Your task to perform on an android device: Show the shopping cart on walmart.com. Search for "logitech g903" on walmart.com, select the first entry, and add it to the cart. Image 0: 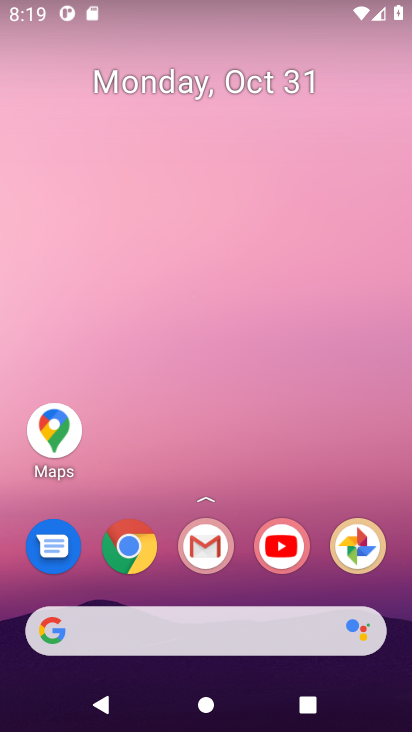
Step 0: click (128, 552)
Your task to perform on an android device: Show the shopping cart on walmart.com. Search for "logitech g903" on walmart.com, select the first entry, and add it to the cart. Image 1: 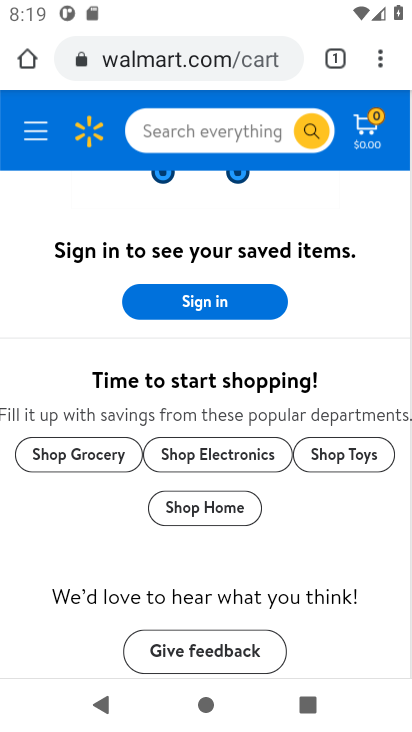
Step 1: drag from (328, 197) to (352, 404)
Your task to perform on an android device: Show the shopping cart on walmart.com. Search for "logitech g903" on walmart.com, select the first entry, and add it to the cart. Image 2: 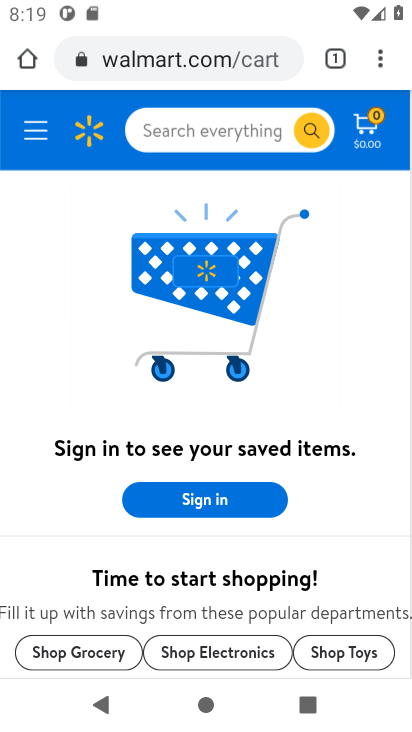
Step 2: drag from (313, 215) to (344, 530)
Your task to perform on an android device: Show the shopping cart on walmart.com. Search for "logitech g903" on walmart.com, select the first entry, and add it to the cart. Image 3: 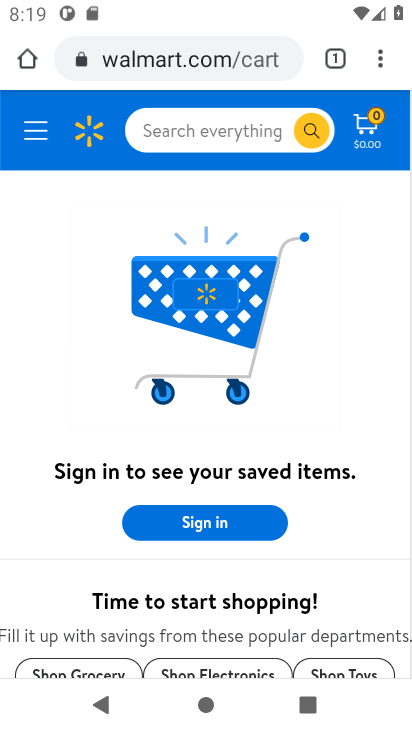
Step 3: click (191, 125)
Your task to perform on an android device: Show the shopping cart on walmart.com. Search for "logitech g903" on walmart.com, select the first entry, and add it to the cart. Image 4: 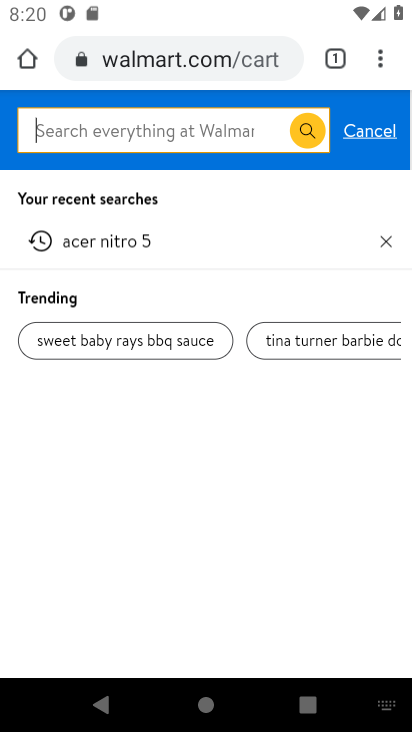
Step 4: type "logitech g903"
Your task to perform on an android device: Show the shopping cart on walmart.com. Search for "logitech g903" on walmart.com, select the first entry, and add it to the cart. Image 5: 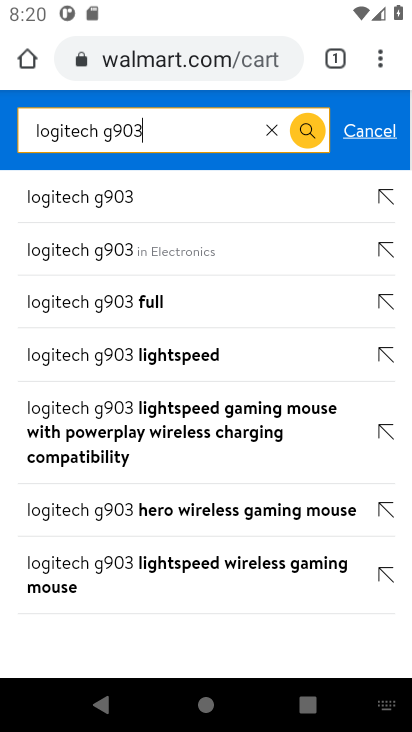
Step 5: click (66, 192)
Your task to perform on an android device: Show the shopping cart on walmart.com. Search for "logitech g903" on walmart.com, select the first entry, and add it to the cart. Image 6: 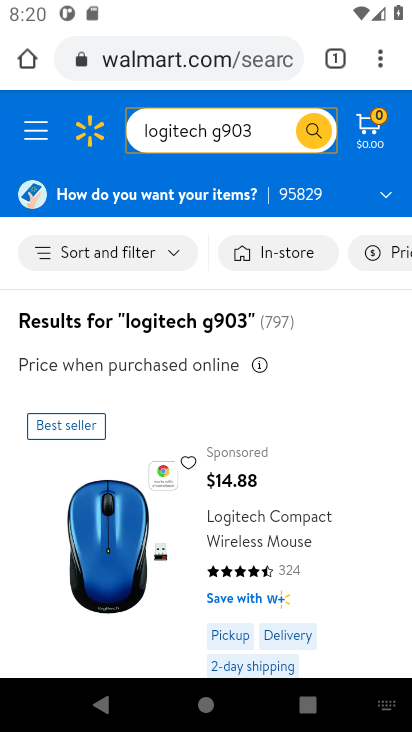
Step 6: drag from (331, 567) to (336, 290)
Your task to perform on an android device: Show the shopping cart on walmart.com. Search for "logitech g903" on walmart.com, select the first entry, and add it to the cart. Image 7: 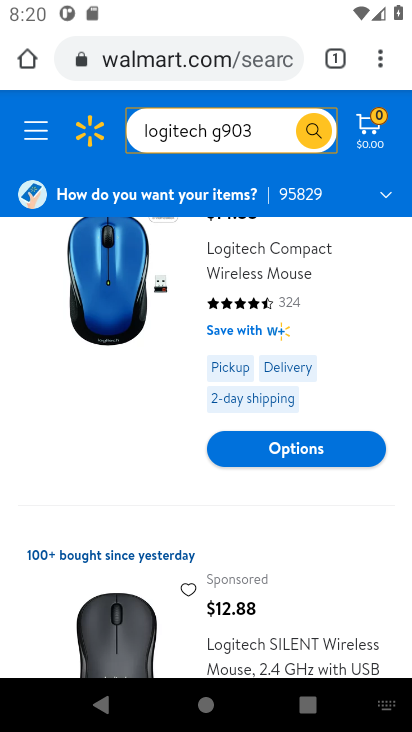
Step 7: click (302, 450)
Your task to perform on an android device: Show the shopping cart on walmart.com. Search for "logitech g903" on walmart.com, select the first entry, and add it to the cart. Image 8: 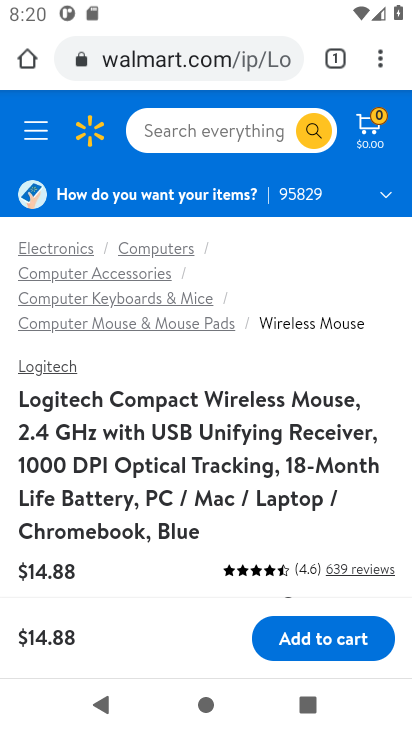
Step 8: drag from (212, 529) to (265, 317)
Your task to perform on an android device: Show the shopping cart on walmart.com. Search for "logitech g903" on walmart.com, select the first entry, and add it to the cart. Image 9: 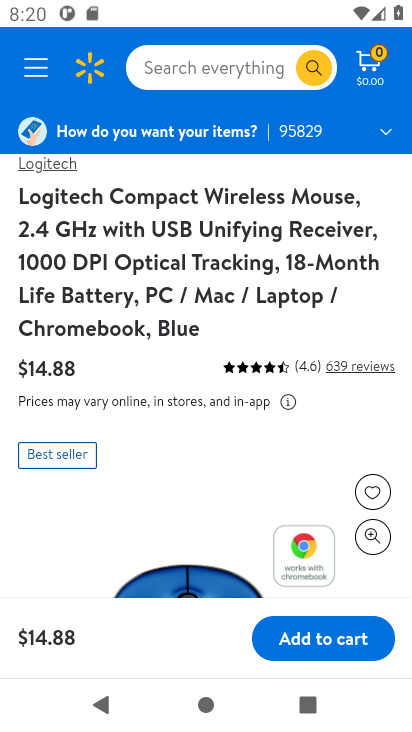
Step 9: drag from (216, 523) to (204, 203)
Your task to perform on an android device: Show the shopping cart on walmart.com. Search for "logitech g903" on walmart.com, select the first entry, and add it to the cart. Image 10: 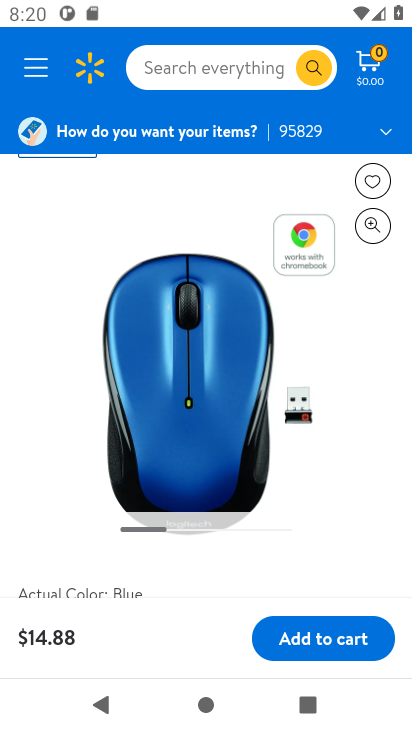
Step 10: drag from (219, 539) to (215, 248)
Your task to perform on an android device: Show the shopping cart on walmart.com. Search for "logitech g903" on walmart.com, select the first entry, and add it to the cart. Image 11: 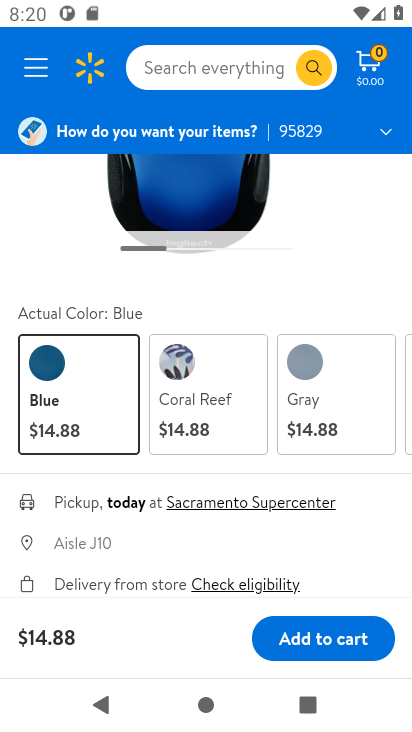
Step 11: click (325, 643)
Your task to perform on an android device: Show the shopping cart on walmart.com. Search for "logitech g903" on walmart.com, select the first entry, and add it to the cart. Image 12: 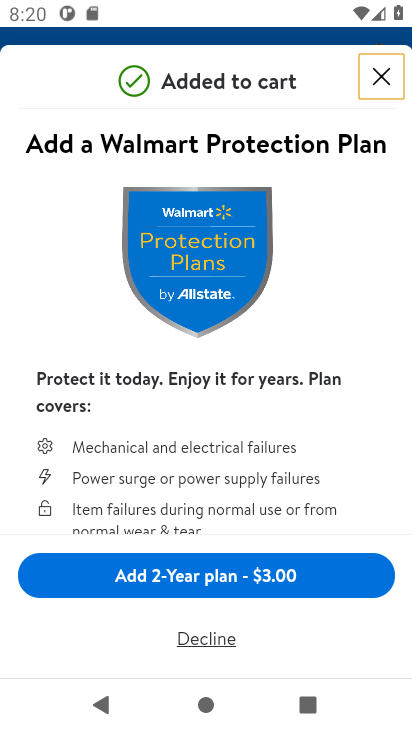
Step 12: click (201, 639)
Your task to perform on an android device: Show the shopping cart on walmart.com. Search for "logitech g903" on walmart.com, select the first entry, and add it to the cart. Image 13: 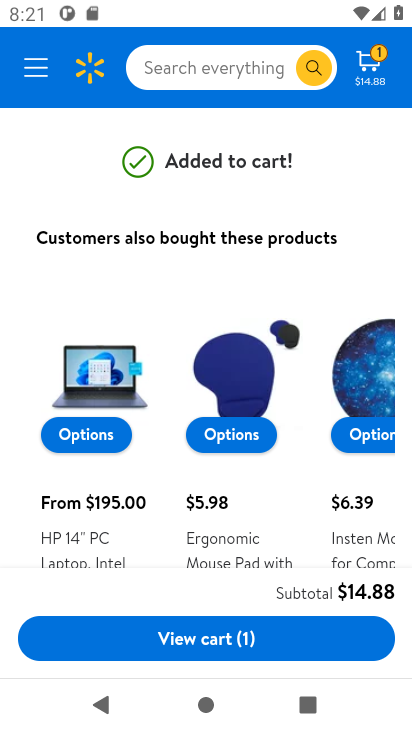
Step 13: task complete